Your task to perform on an android device: Go to wifi settings Image 0: 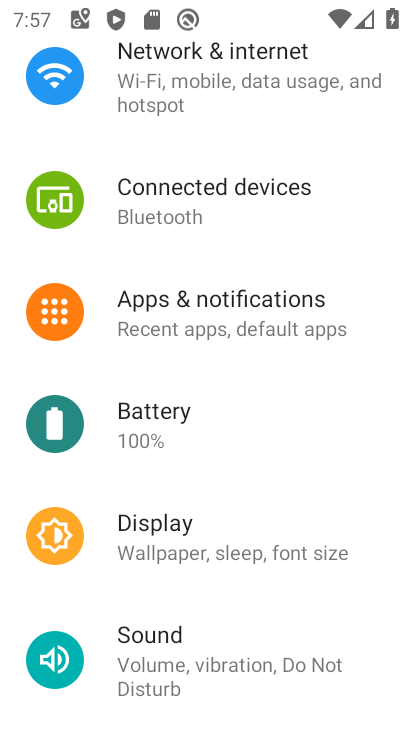
Step 0: drag from (310, 449) to (302, 183)
Your task to perform on an android device: Go to wifi settings Image 1: 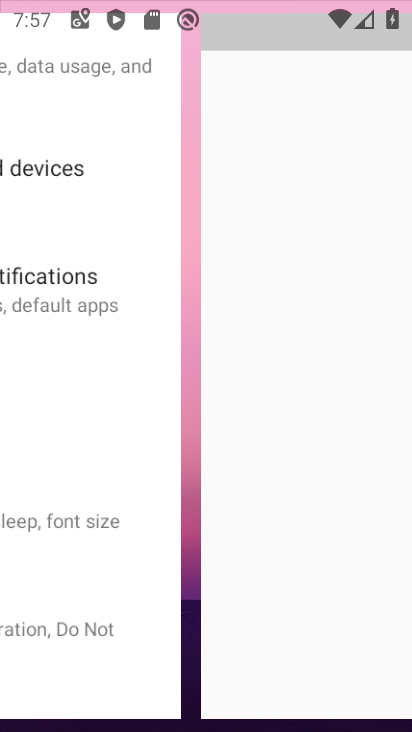
Step 1: drag from (222, 399) to (168, 629)
Your task to perform on an android device: Go to wifi settings Image 2: 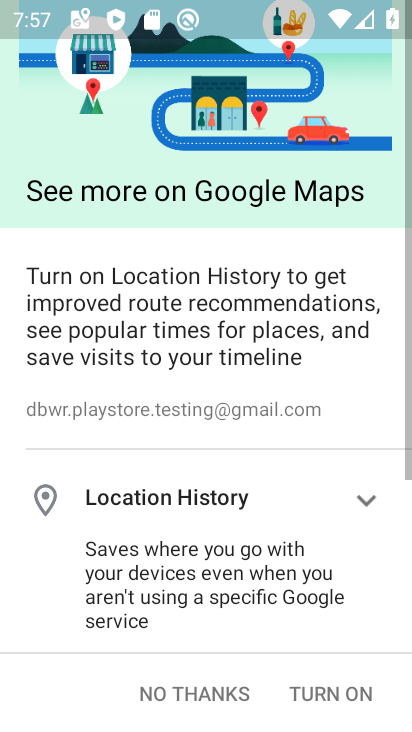
Step 2: press home button
Your task to perform on an android device: Go to wifi settings Image 3: 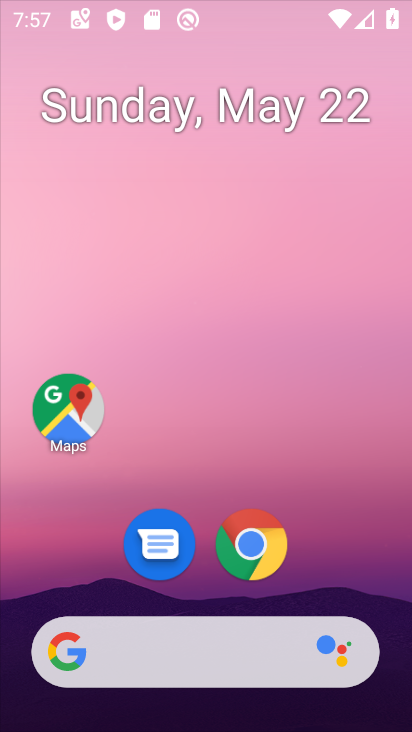
Step 3: drag from (309, 572) to (286, 108)
Your task to perform on an android device: Go to wifi settings Image 4: 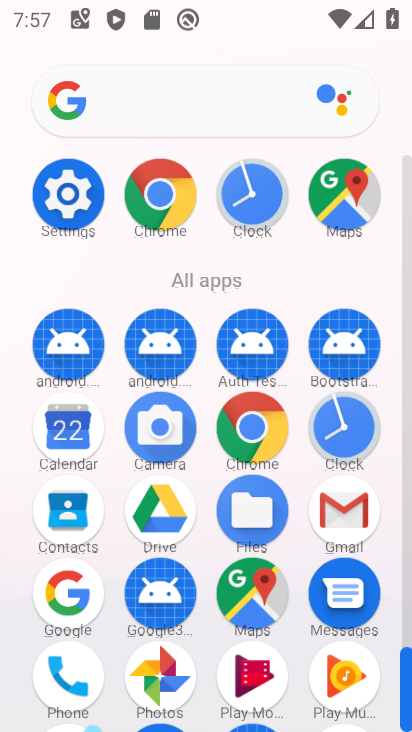
Step 4: click (73, 186)
Your task to perform on an android device: Go to wifi settings Image 5: 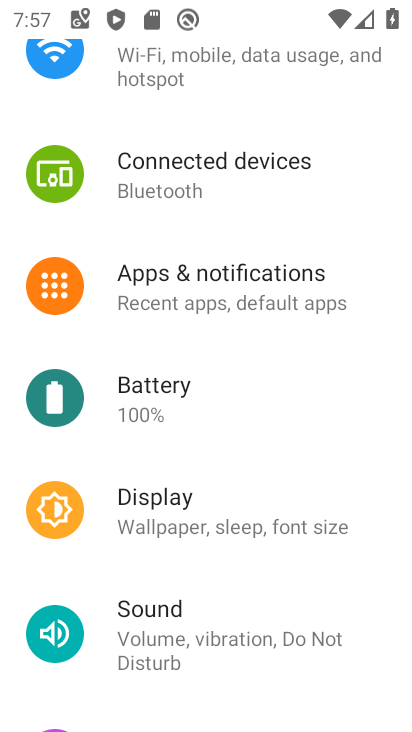
Step 5: drag from (195, 137) to (248, 536)
Your task to perform on an android device: Go to wifi settings Image 6: 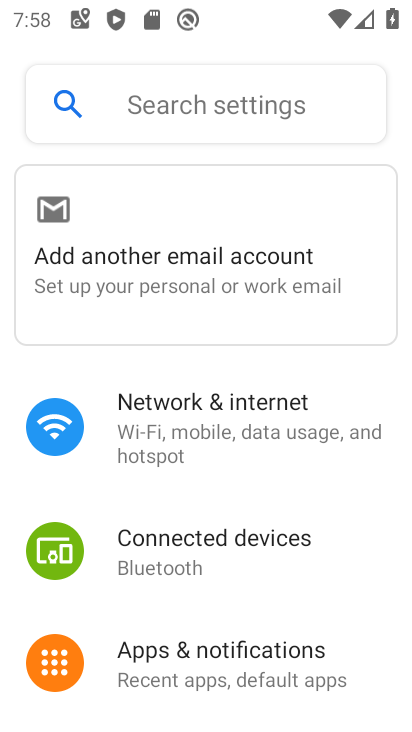
Step 6: click (219, 425)
Your task to perform on an android device: Go to wifi settings Image 7: 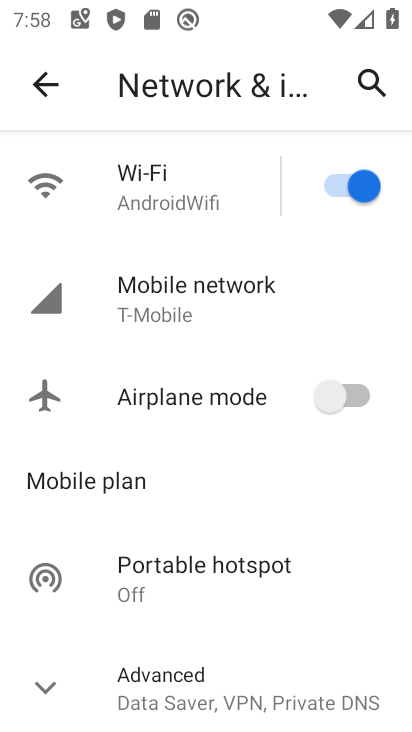
Step 7: click (226, 187)
Your task to perform on an android device: Go to wifi settings Image 8: 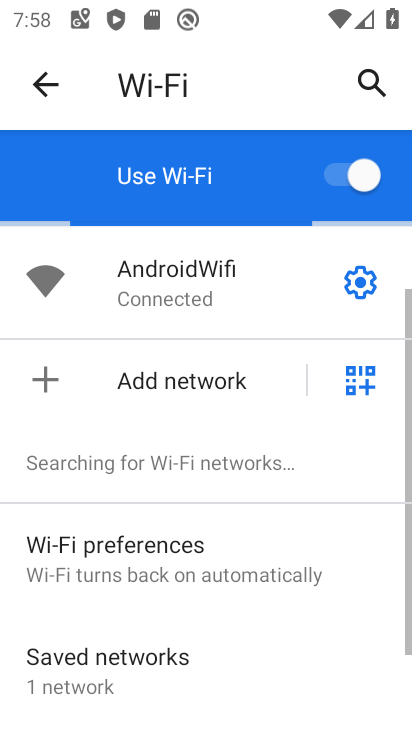
Step 8: click (368, 284)
Your task to perform on an android device: Go to wifi settings Image 9: 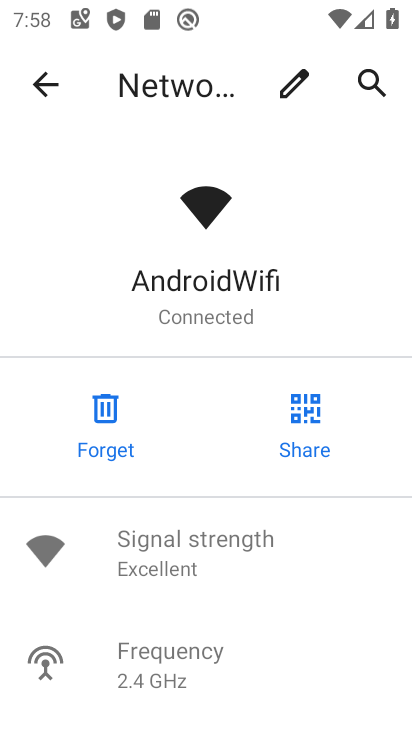
Step 9: task complete